Your task to perform on an android device: Open Google Chrome Image 0: 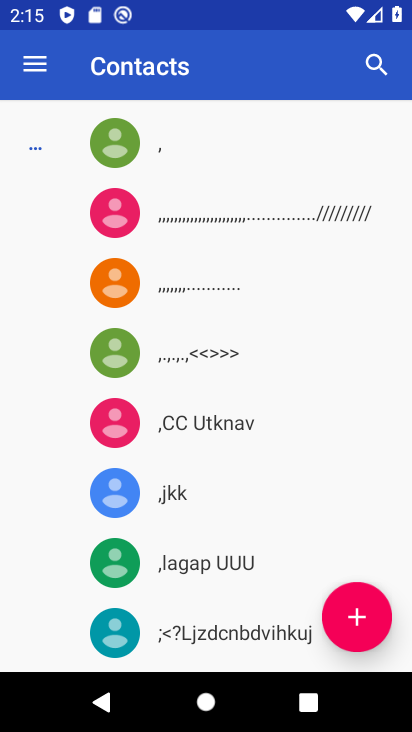
Step 0: press home button
Your task to perform on an android device: Open Google Chrome Image 1: 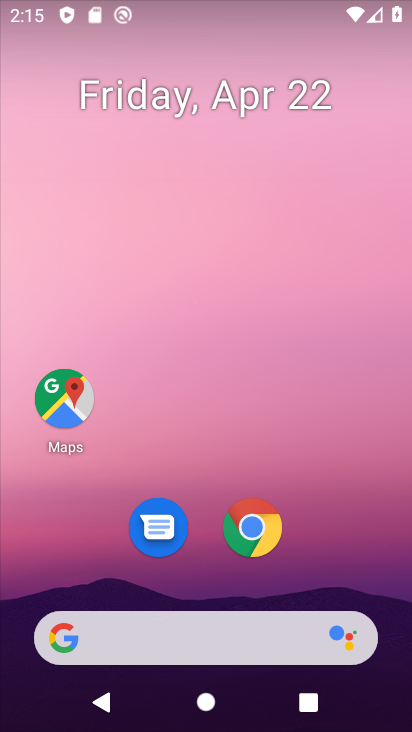
Step 1: drag from (384, 598) to (269, 128)
Your task to perform on an android device: Open Google Chrome Image 2: 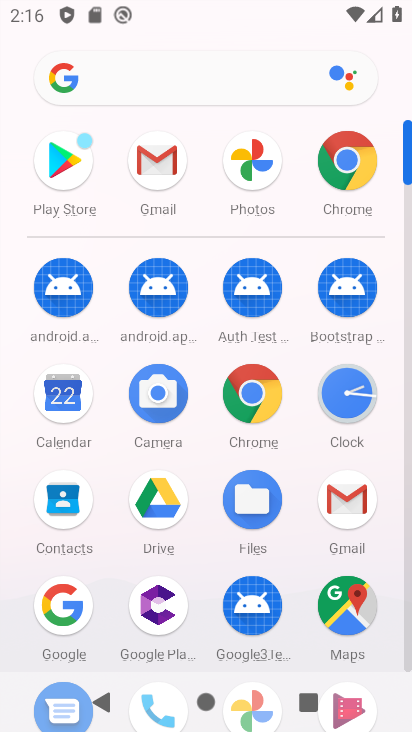
Step 2: click (285, 389)
Your task to perform on an android device: Open Google Chrome Image 3: 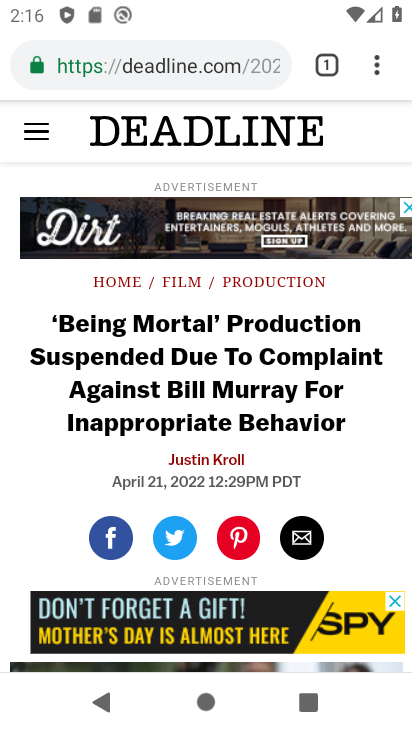
Step 3: task complete